Your task to perform on an android device: Open display settings Image 0: 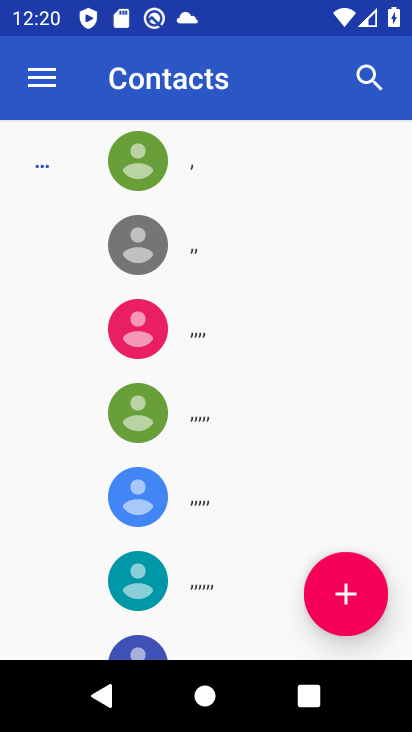
Step 0: press home button
Your task to perform on an android device: Open display settings Image 1: 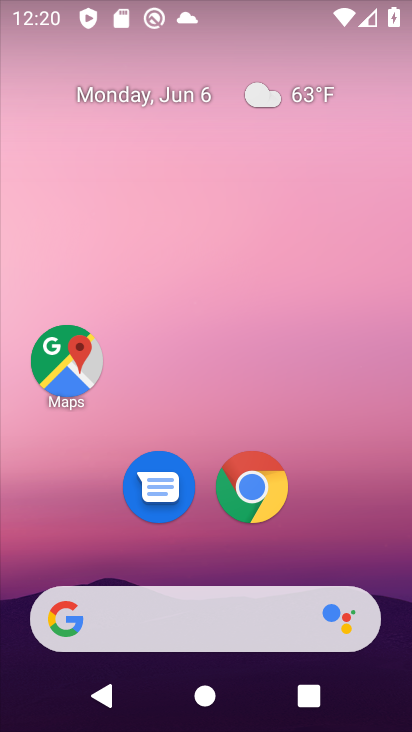
Step 1: drag from (400, 619) to (338, 168)
Your task to perform on an android device: Open display settings Image 2: 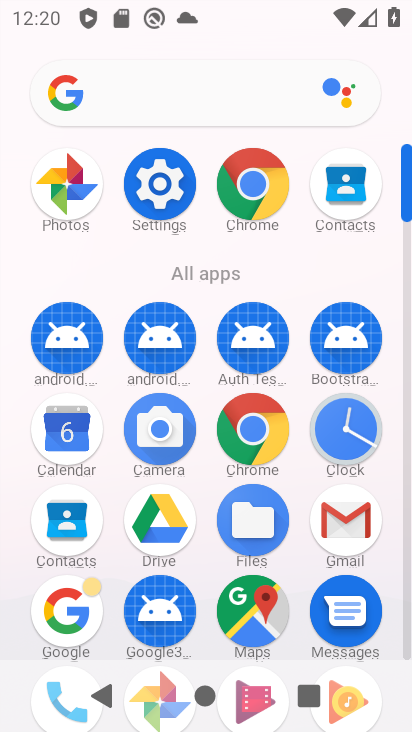
Step 2: click (406, 644)
Your task to perform on an android device: Open display settings Image 3: 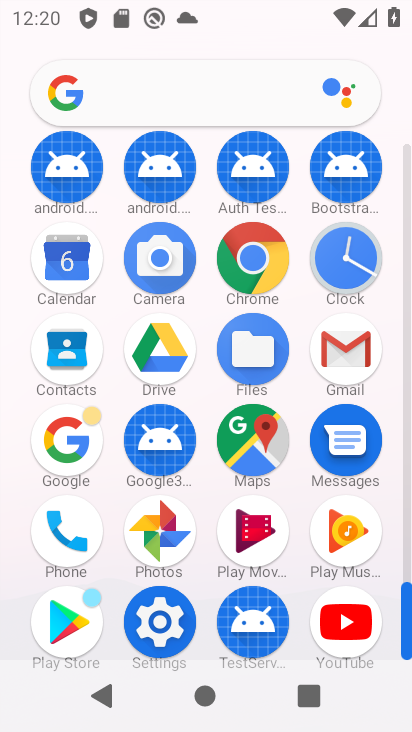
Step 3: click (158, 621)
Your task to perform on an android device: Open display settings Image 4: 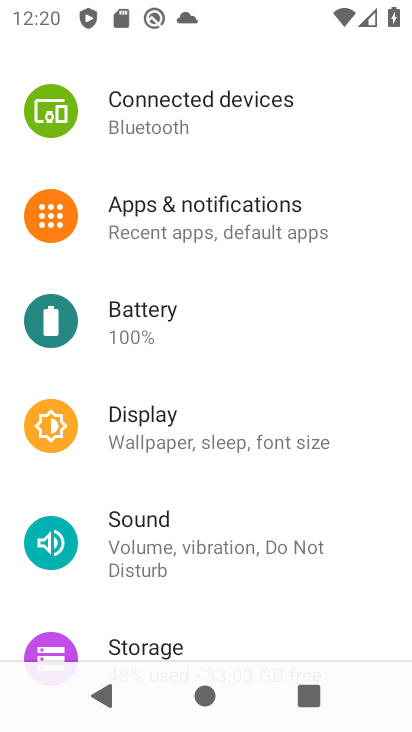
Step 4: click (151, 425)
Your task to perform on an android device: Open display settings Image 5: 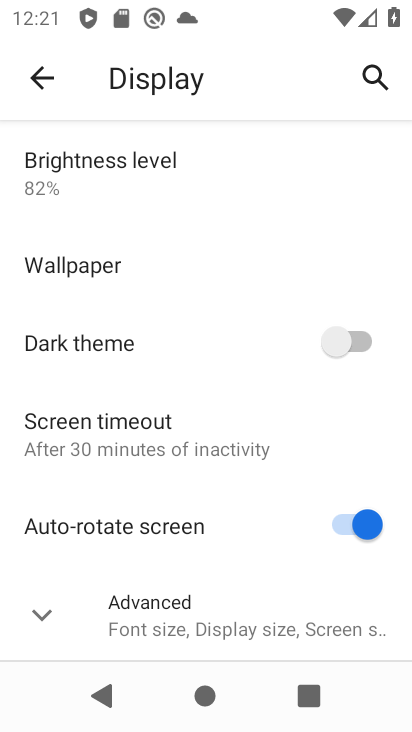
Step 5: click (33, 622)
Your task to perform on an android device: Open display settings Image 6: 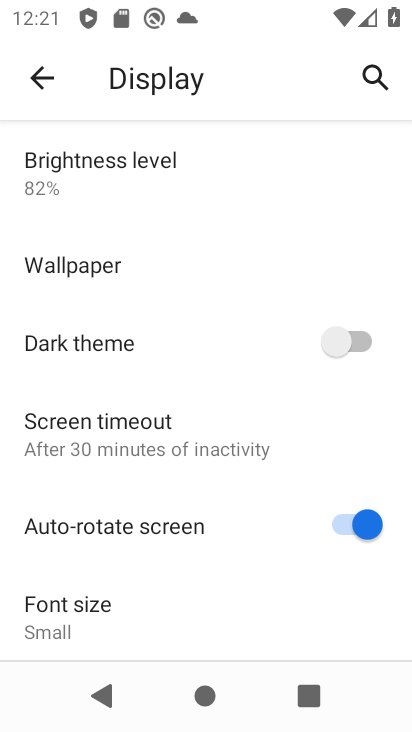
Step 6: task complete